Your task to perform on an android device: show emergency info Image 0: 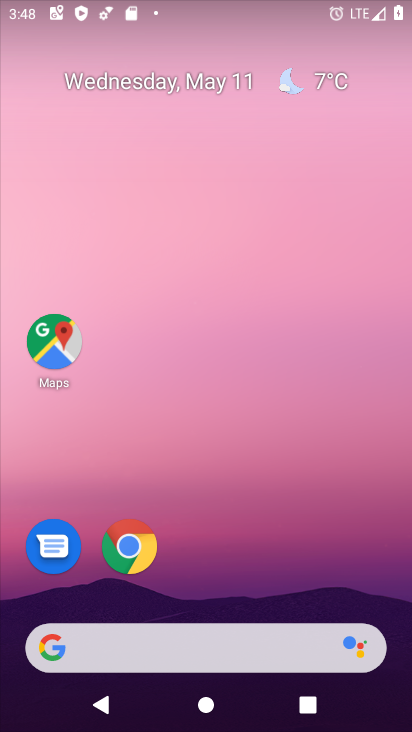
Step 0: drag from (360, 593) to (397, 627)
Your task to perform on an android device: show emergency info Image 1: 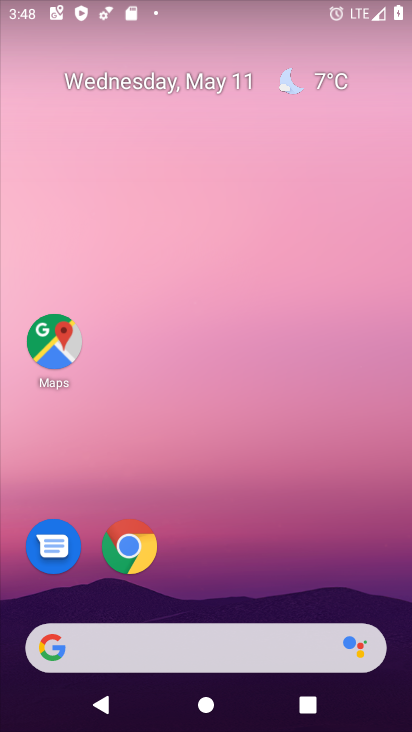
Step 1: drag from (283, 625) to (272, 24)
Your task to perform on an android device: show emergency info Image 2: 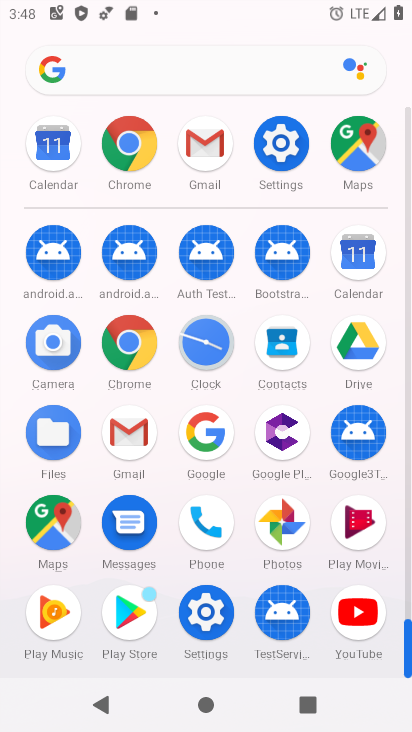
Step 2: click (266, 162)
Your task to perform on an android device: show emergency info Image 3: 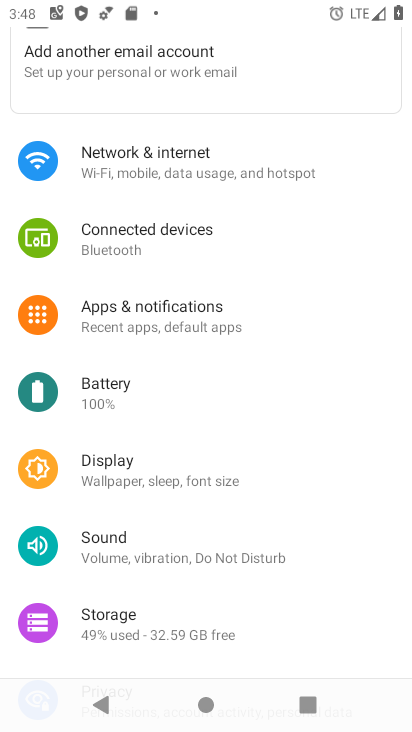
Step 3: drag from (163, 616) to (201, 54)
Your task to perform on an android device: show emergency info Image 4: 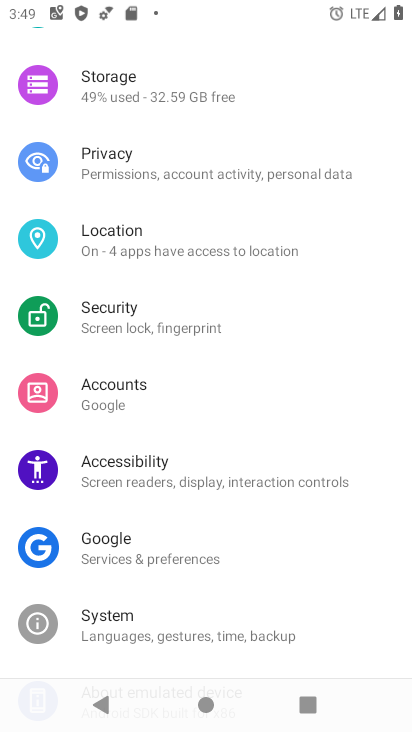
Step 4: click (154, 631)
Your task to perform on an android device: show emergency info Image 5: 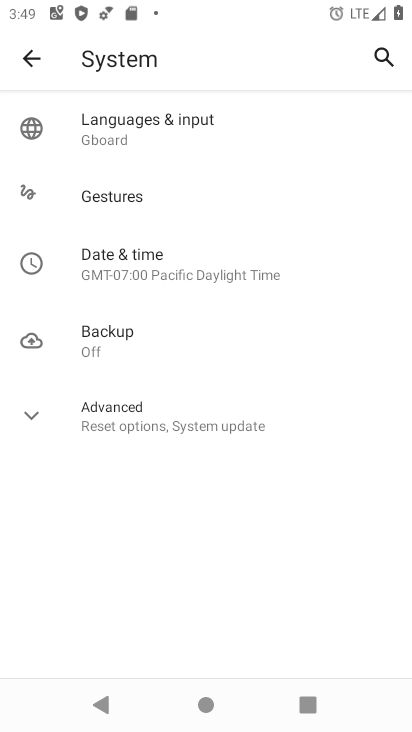
Step 5: press back button
Your task to perform on an android device: show emergency info Image 6: 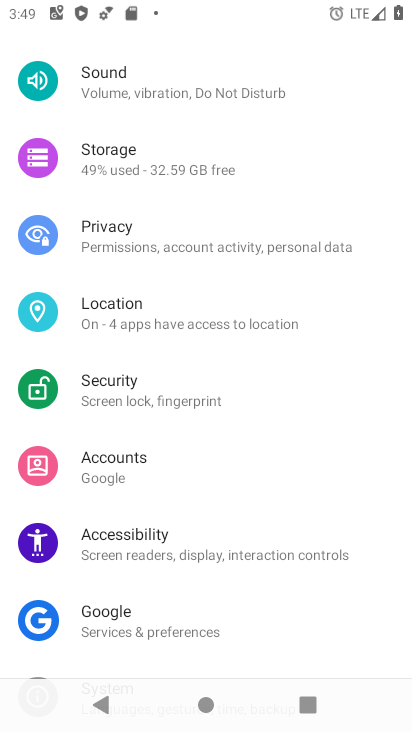
Step 6: drag from (204, 633) to (258, 38)
Your task to perform on an android device: show emergency info Image 7: 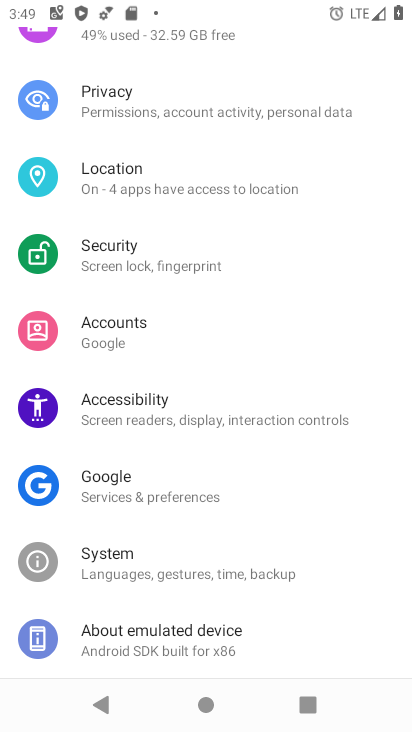
Step 7: click (152, 643)
Your task to perform on an android device: show emergency info Image 8: 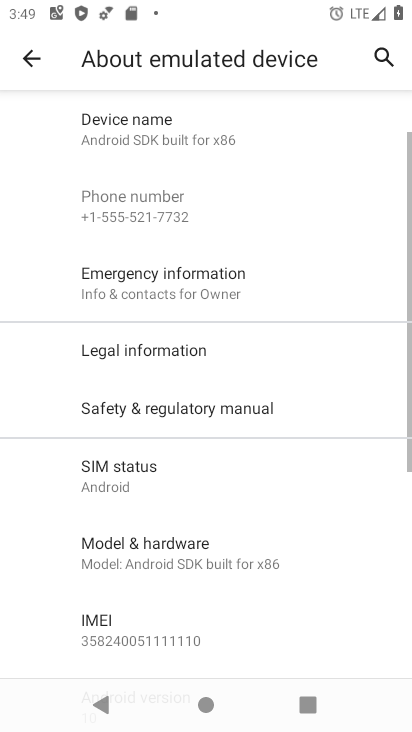
Step 8: click (222, 291)
Your task to perform on an android device: show emergency info Image 9: 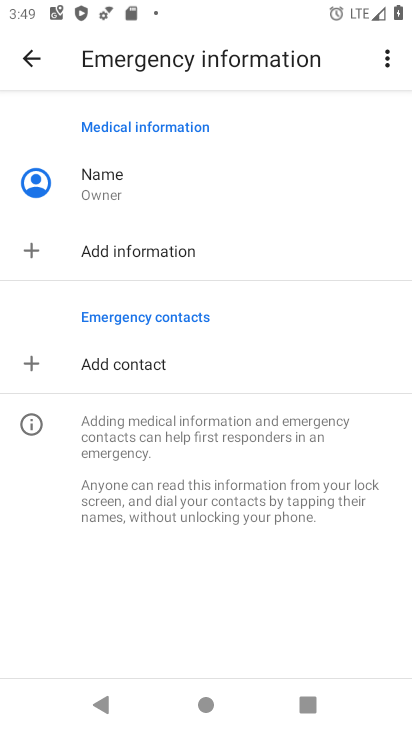
Step 9: task complete